Your task to perform on an android device: Do I have any events this weekend? Image 0: 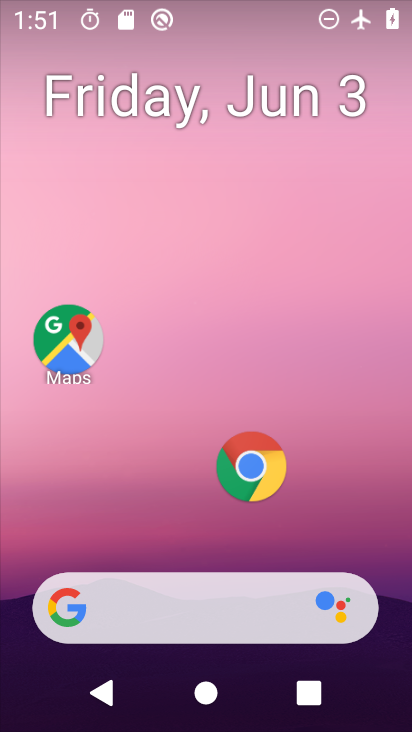
Step 0: drag from (215, 531) to (212, 154)
Your task to perform on an android device: Do I have any events this weekend? Image 1: 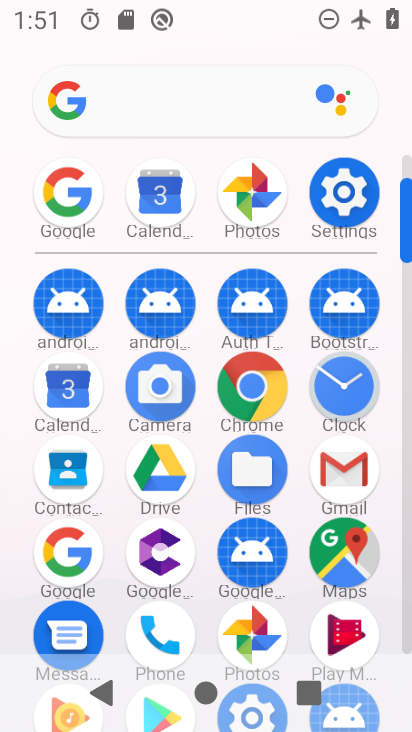
Step 1: click (62, 401)
Your task to perform on an android device: Do I have any events this weekend? Image 2: 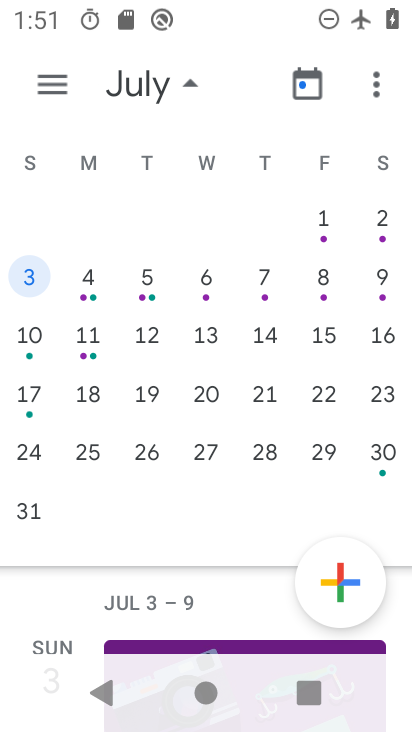
Step 2: drag from (51, 300) to (353, 317)
Your task to perform on an android device: Do I have any events this weekend? Image 3: 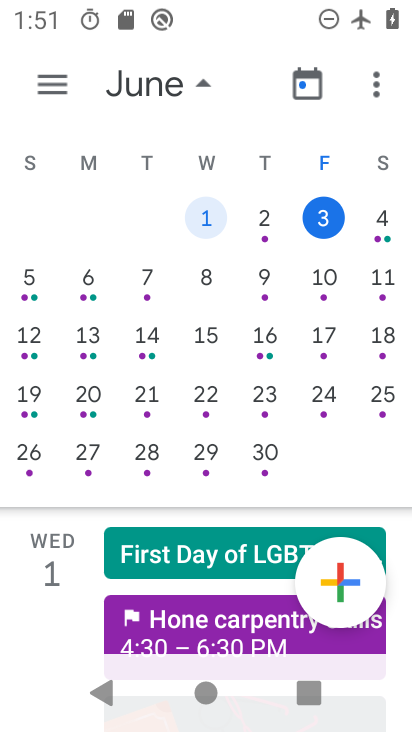
Step 3: click (364, 232)
Your task to perform on an android device: Do I have any events this weekend? Image 4: 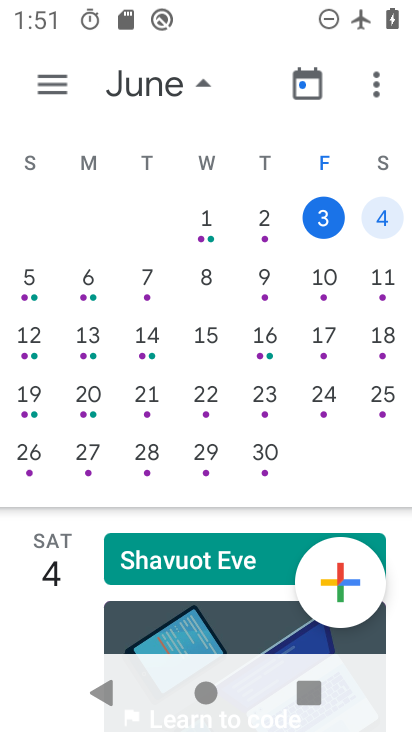
Step 4: click (406, 216)
Your task to perform on an android device: Do I have any events this weekend? Image 5: 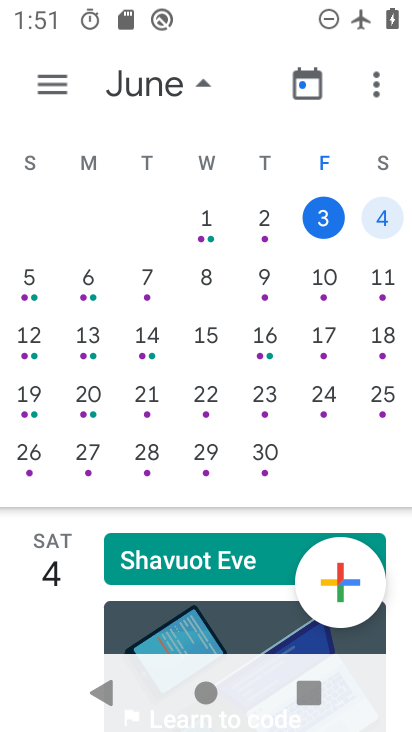
Step 5: click (366, 221)
Your task to perform on an android device: Do I have any events this weekend? Image 6: 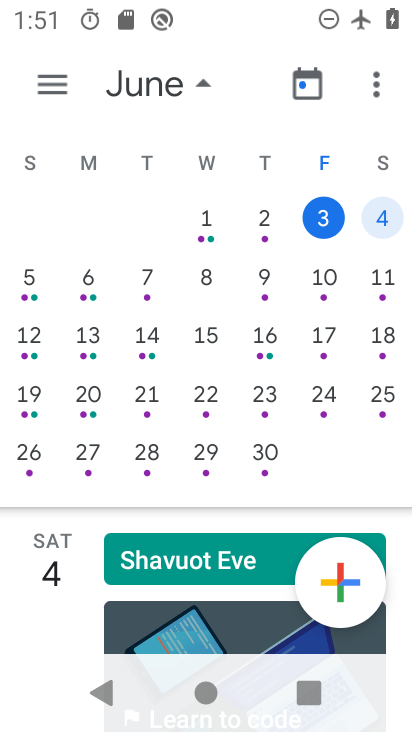
Step 6: task complete